Your task to perform on an android device: Search for "dell alienware" on walmart, select the first entry, and add it to the cart. Image 0: 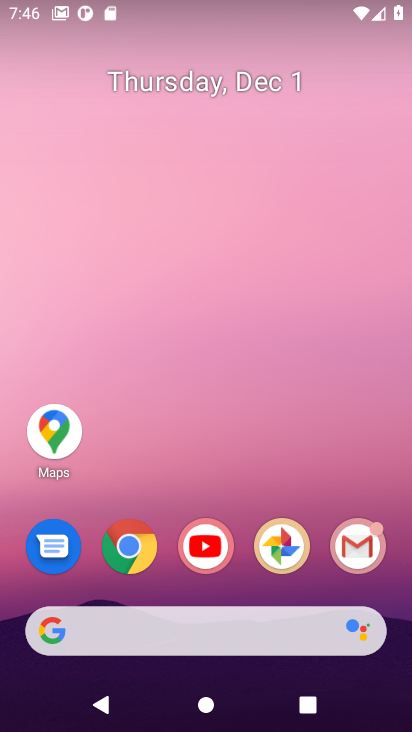
Step 0: click (132, 545)
Your task to perform on an android device: Search for "dell alienware" on walmart, select the first entry, and add it to the cart. Image 1: 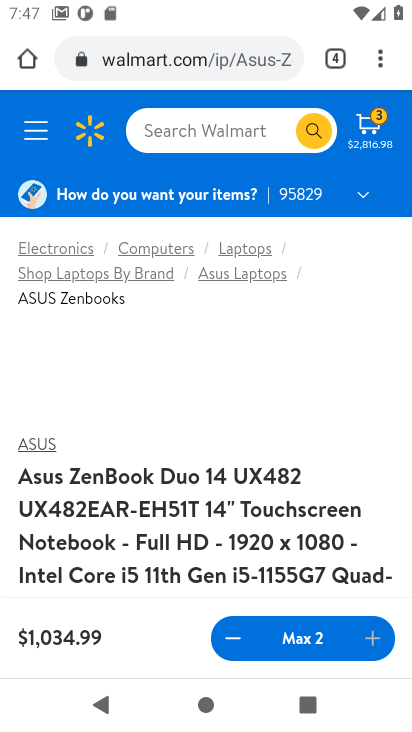
Step 1: click (181, 136)
Your task to perform on an android device: Search for "dell alienware" on walmart, select the first entry, and add it to the cart. Image 2: 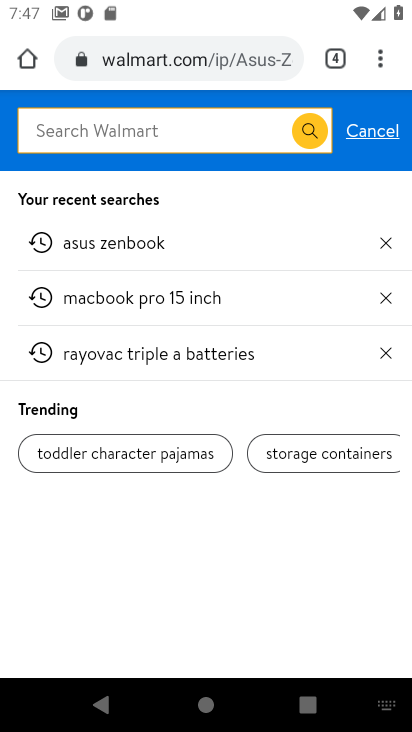
Step 2: type "dell alienware"
Your task to perform on an android device: Search for "dell alienware" on walmart, select the first entry, and add it to the cart. Image 3: 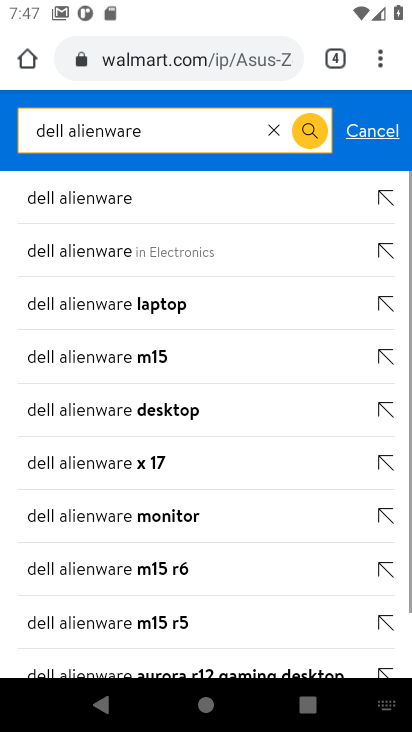
Step 3: click (107, 200)
Your task to perform on an android device: Search for "dell alienware" on walmart, select the first entry, and add it to the cart. Image 4: 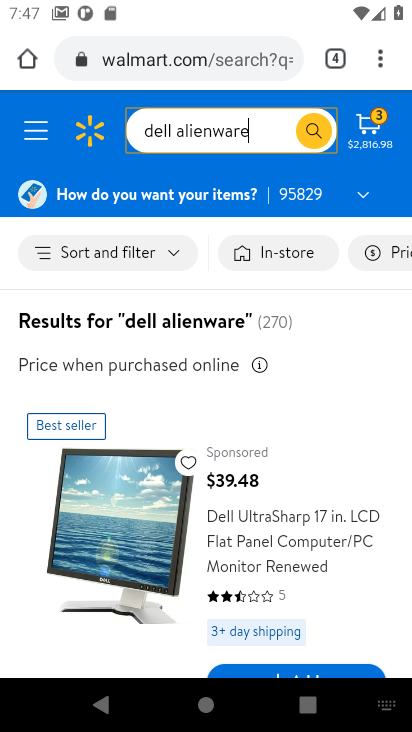
Step 4: task complete